Your task to perform on an android device: open app "TextNow: Call + Text Unlimited" (install if not already installed) and go to login screen Image 0: 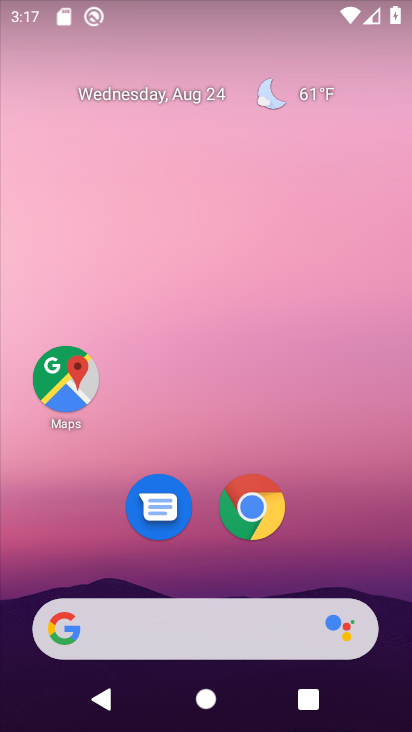
Step 0: drag from (161, 624) to (281, 104)
Your task to perform on an android device: open app "TextNow: Call + Text Unlimited" (install if not already installed) and go to login screen Image 1: 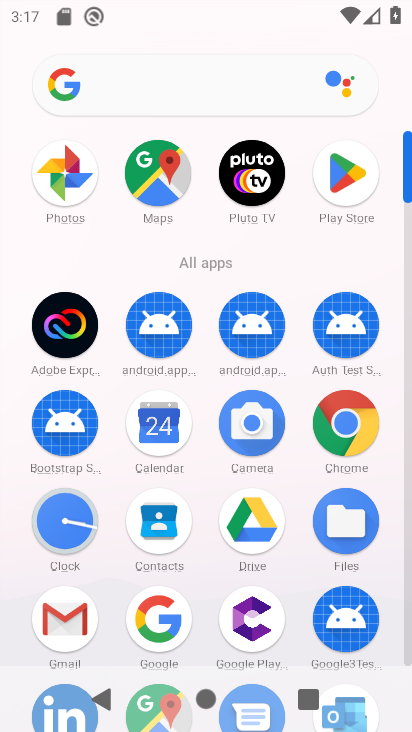
Step 1: click (341, 172)
Your task to perform on an android device: open app "TextNow: Call + Text Unlimited" (install if not already installed) and go to login screen Image 2: 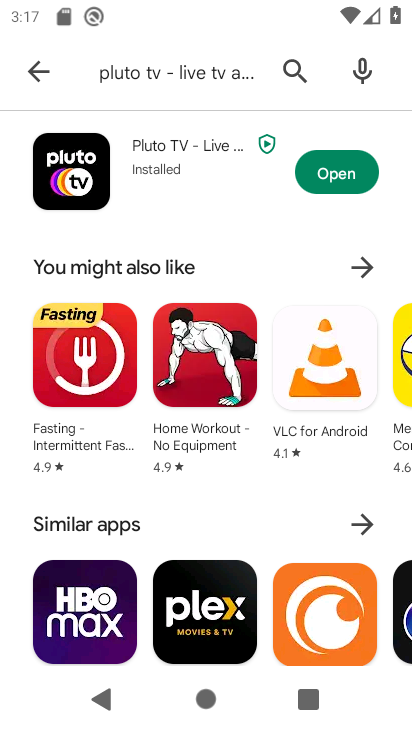
Step 2: press back button
Your task to perform on an android device: open app "TextNow: Call + Text Unlimited" (install if not already installed) and go to login screen Image 3: 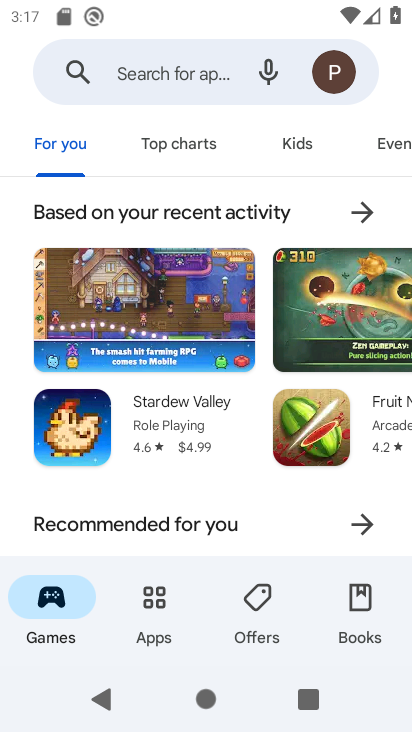
Step 3: click (166, 73)
Your task to perform on an android device: open app "TextNow: Call + Text Unlimited" (install if not already installed) and go to login screen Image 4: 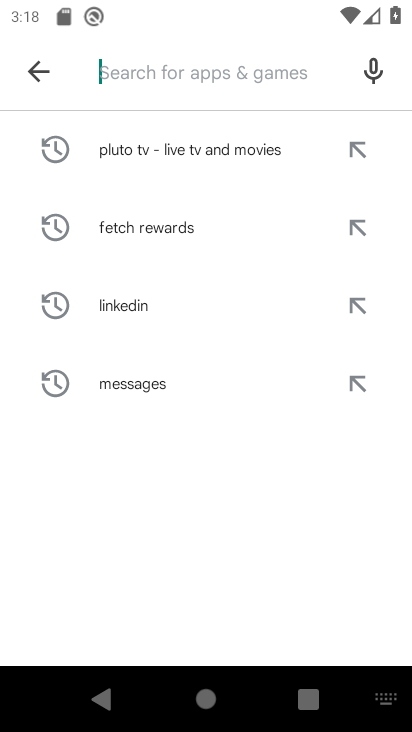
Step 4: type "TextNow: Call + Text Unlimited"
Your task to perform on an android device: open app "TextNow: Call + Text Unlimited" (install if not already installed) and go to login screen Image 5: 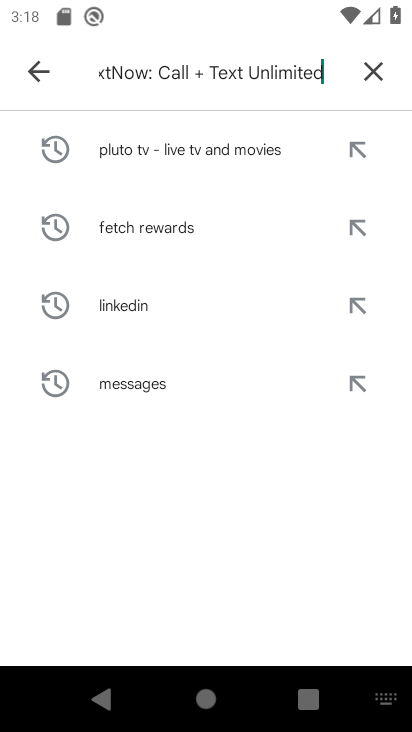
Step 5: type ""
Your task to perform on an android device: open app "TextNow: Call + Text Unlimited" (install if not already installed) and go to login screen Image 6: 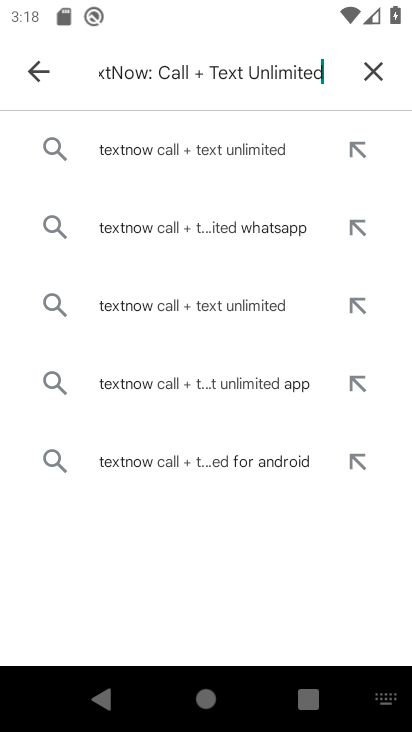
Step 6: click (160, 149)
Your task to perform on an android device: open app "TextNow: Call + Text Unlimited" (install if not already installed) and go to login screen Image 7: 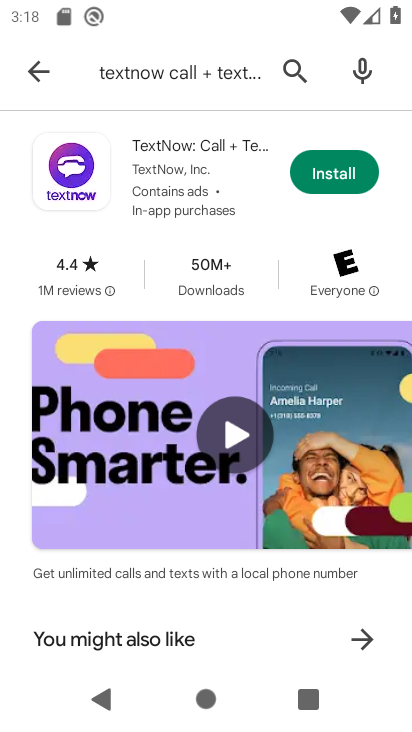
Step 7: click (340, 172)
Your task to perform on an android device: open app "TextNow: Call + Text Unlimited" (install if not already installed) and go to login screen Image 8: 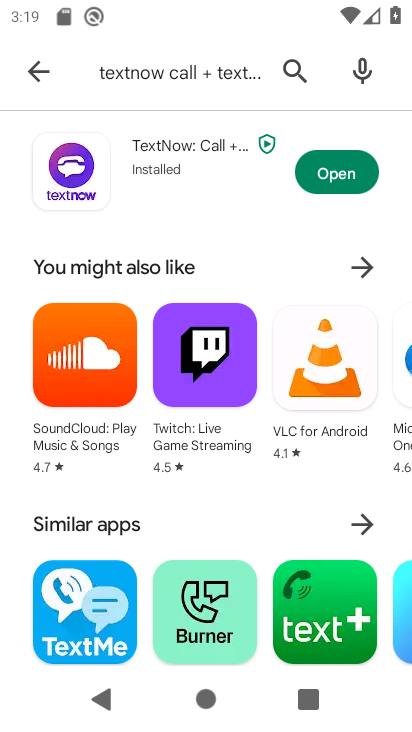
Step 8: click (340, 172)
Your task to perform on an android device: open app "TextNow: Call + Text Unlimited" (install if not already installed) and go to login screen Image 9: 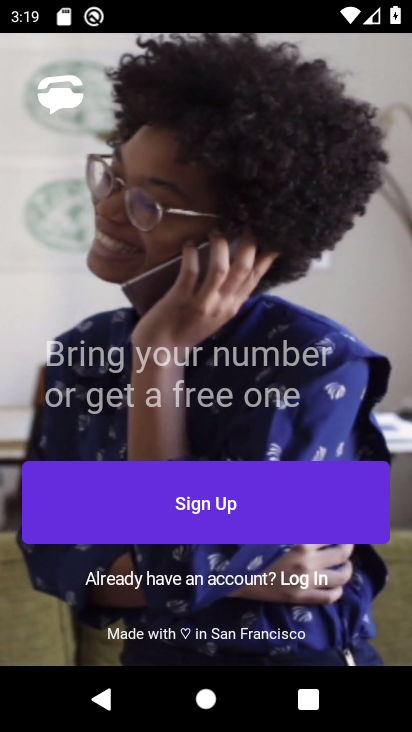
Step 9: click (303, 579)
Your task to perform on an android device: open app "TextNow: Call + Text Unlimited" (install if not already installed) and go to login screen Image 10: 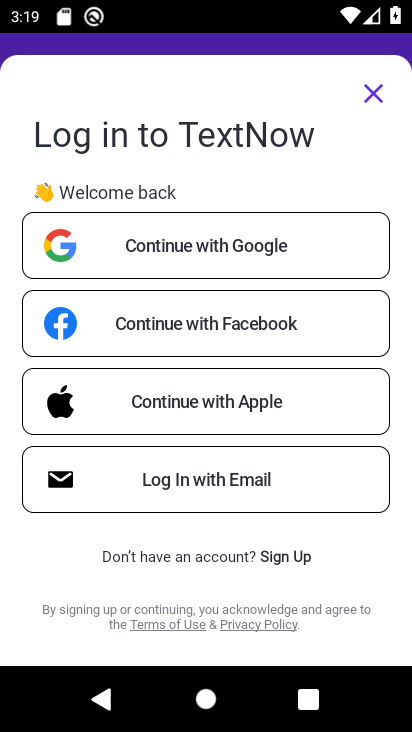
Step 10: click (241, 479)
Your task to perform on an android device: open app "TextNow: Call + Text Unlimited" (install if not already installed) and go to login screen Image 11: 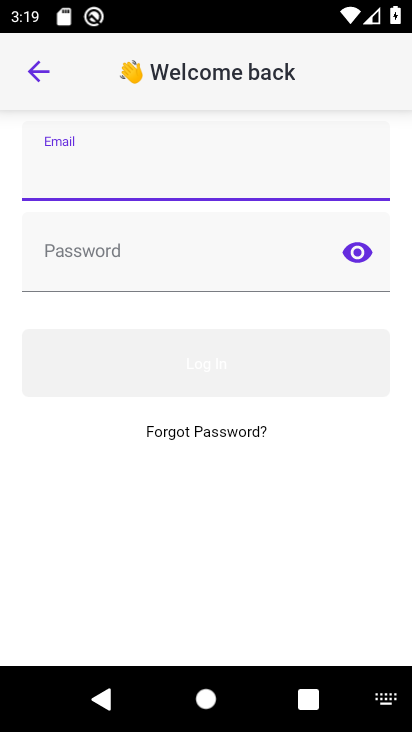
Step 11: task complete